Your task to perform on an android device: Go to notification settings Image 0: 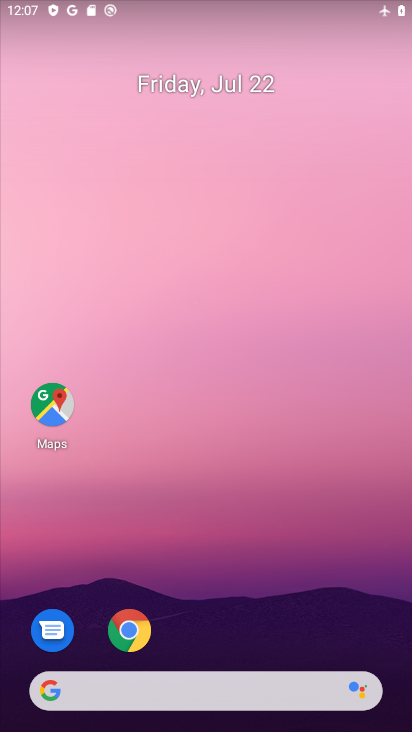
Step 0: drag from (240, 651) to (149, 31)
Your task to perform on an android device: Go to notification settings Image 1: 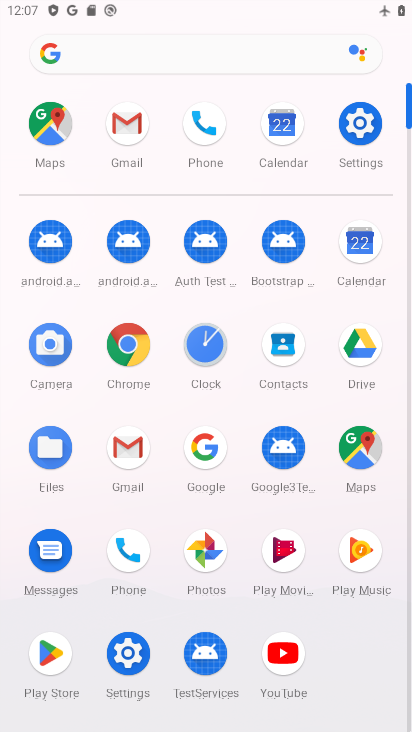
Step 1: click (133, 679)
Your task to perform on an android device: Go to notification settings Image 2: 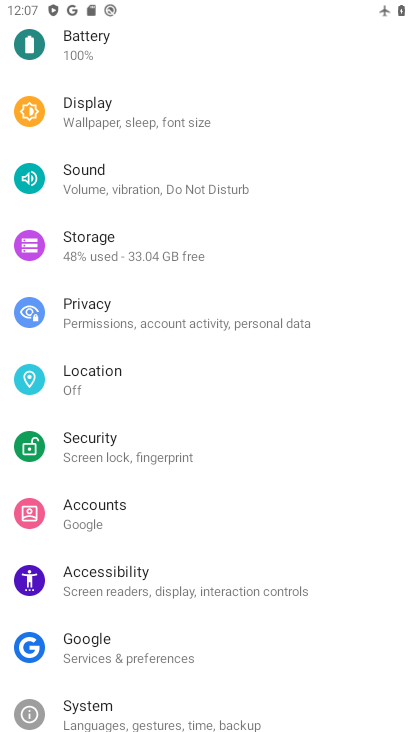
Step 2: drag from (174, 233) to (161, 595)
Your task to perform on an android device: Go to notification settings Image 3: 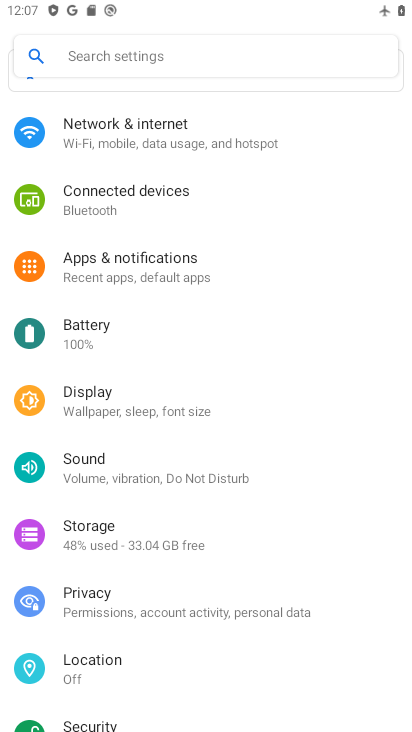
Step 3: click (137, 262)
Your task to perform on an android device: Go to notification settings Image 4: 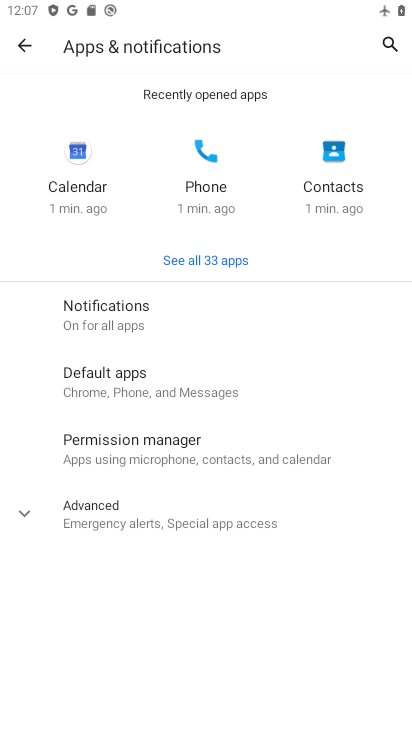
Step 4: click (66, 317)
Your task to perform on an android device: Go to notification settings Image 5: 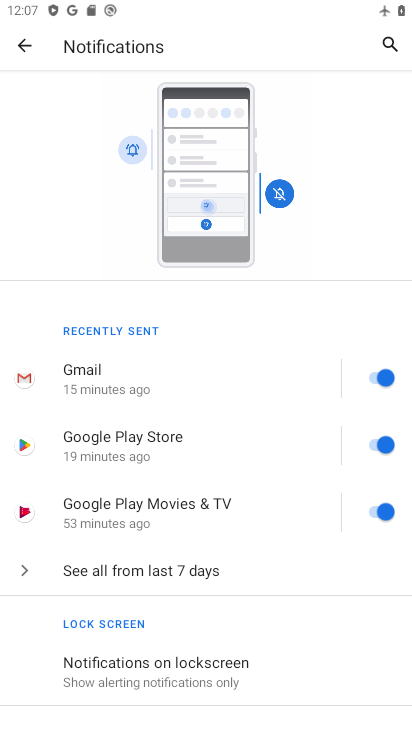
Step 5: task complete